Your task to perform on an android device: turn off notifications settings in the gmail app Image 0: 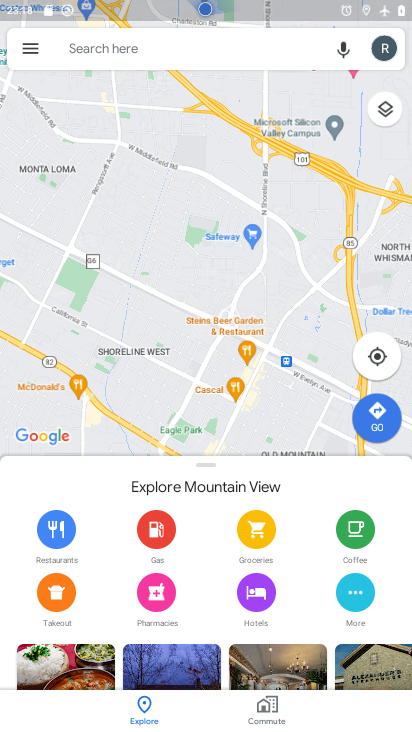
Step 0: press home button
Your task to perform on an android device: turn off notifications settings in the gmail app Image 1: 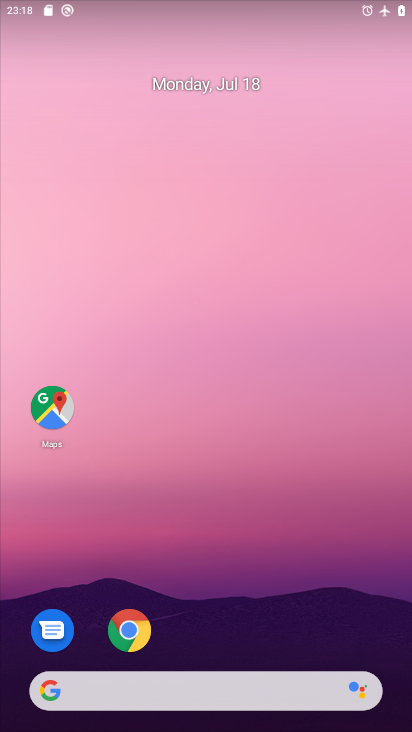
Step 1: drag from (233, 660) to (234, 264)
Your task to perform on an android device: turn off notifications settings in the gmail app Image 2: 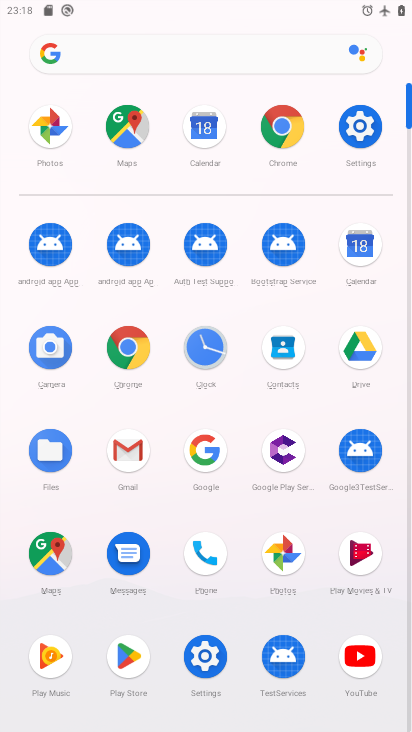
Step 2: click (126, 442)
Your task to perform on an android device: turn off notifications settings in the gmail app Image 3: 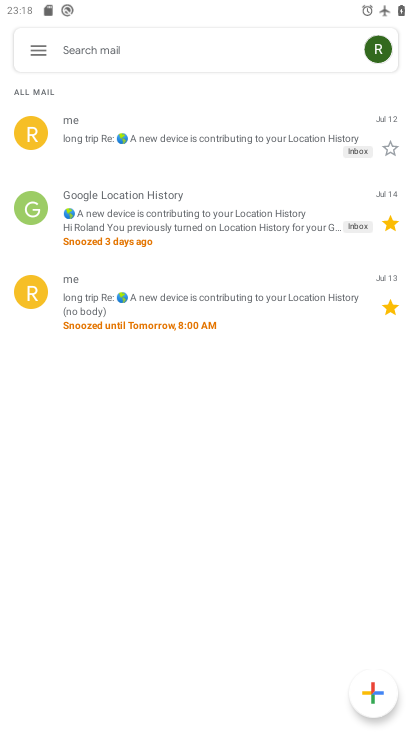
Step 3: click (18, 46)
Your task to perform on an android device: turn off notifications settings in the gmail app Image 4: 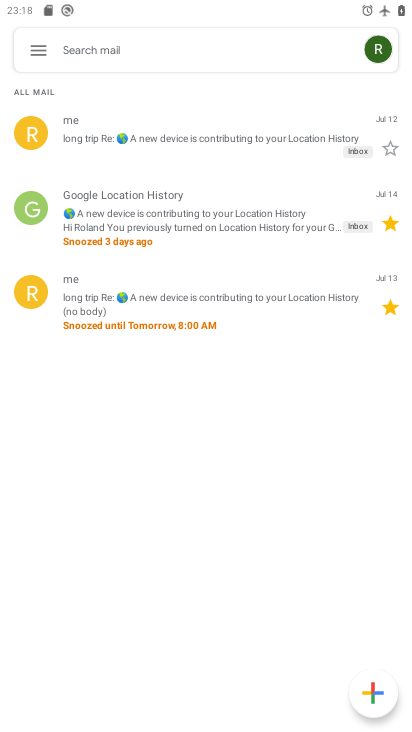
Step 4: click (38, 49)
Your task to perform on an android device: turn off notifications settings in the gmail app Image 5: 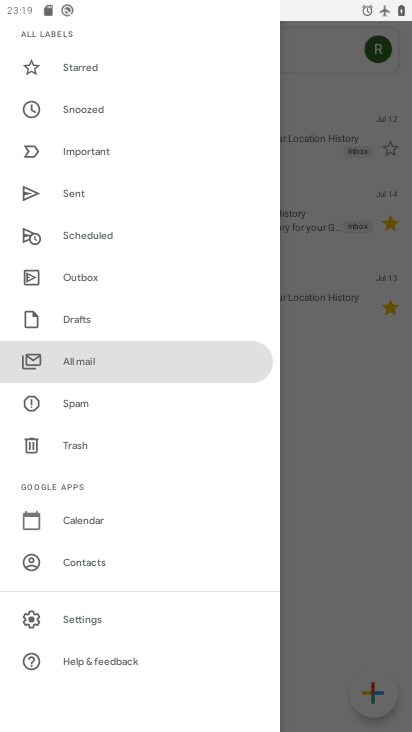
Step 5: click (107, 620)
Your task to perform on an android device: turn off notifications settings in the gmail app Image 6: 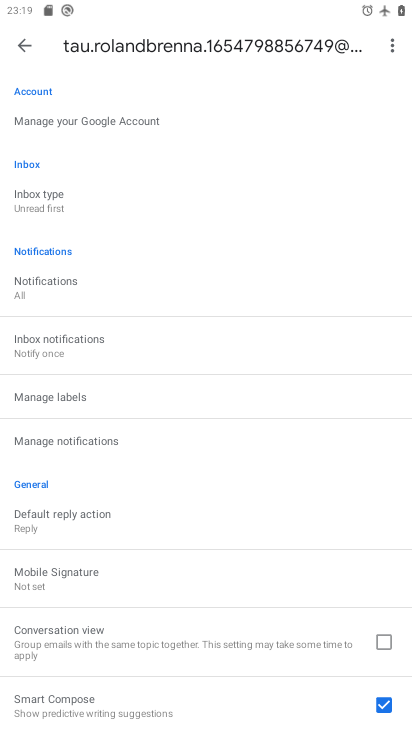
Step 6: click (72, 276)
Your task to perform on an android device: turn off notifications settings in the gmail app Image 7: 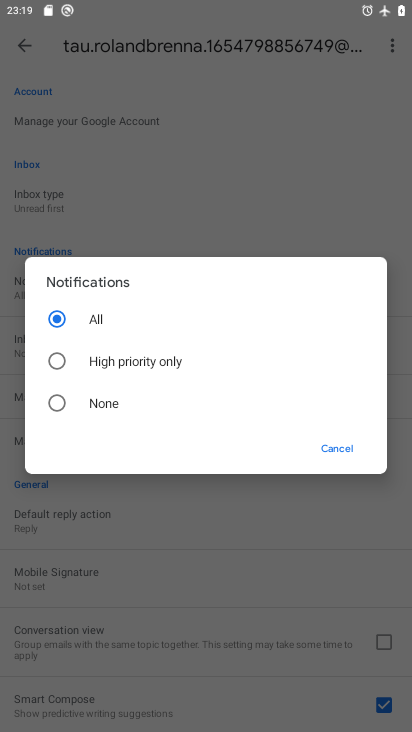
Step 7: click (118, 399)
Your task to perform on an android device: turn off notifications settings in the gmail app Image 8: 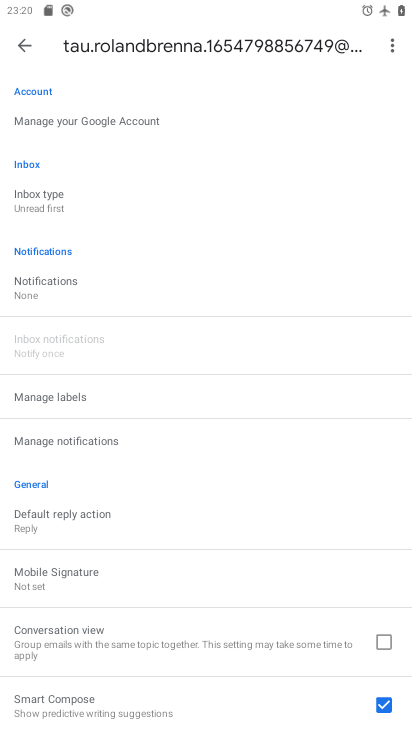
Step 8: task complete